Your task to perform on an android device: delete location history Image 0: 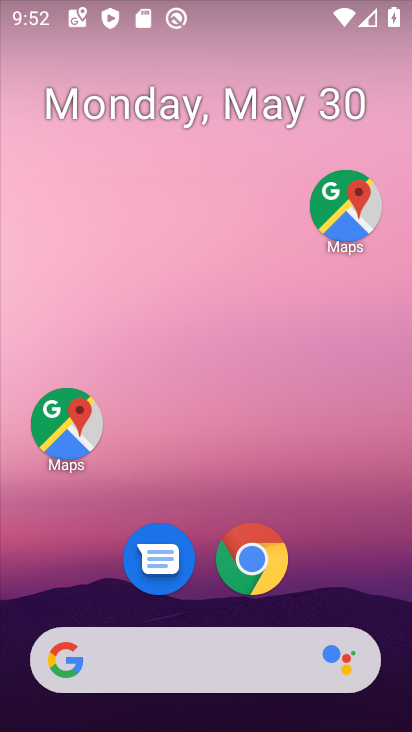
Step 0: click (72, 435)
Your task to perform on an android device: delete location history Image 1: 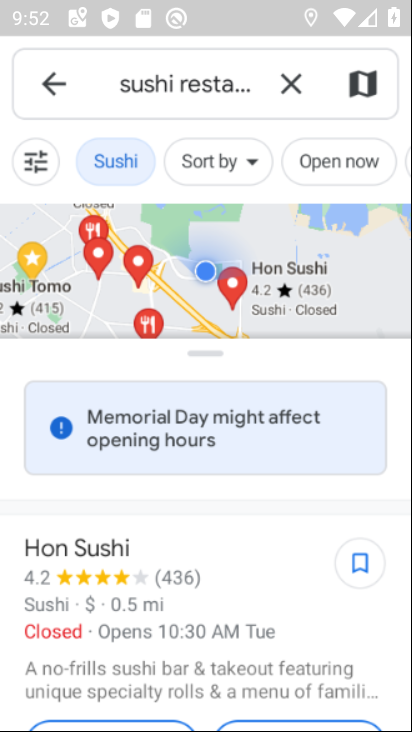
Step 1: click (65, 85)
Your task to perform on an android device: delete location history Image 2: 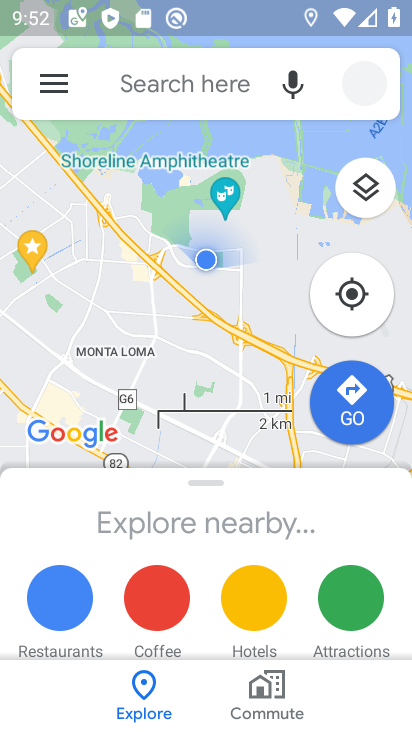
Step 2: click (64, 84)
Your task to perform on an android device: delete location history Image 3: 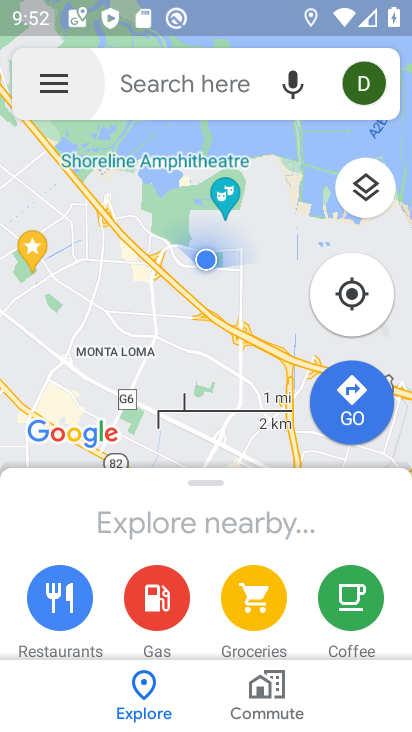
Step 3: click (64, 84)
Your task to perform on an android device: delete location history Image 4: 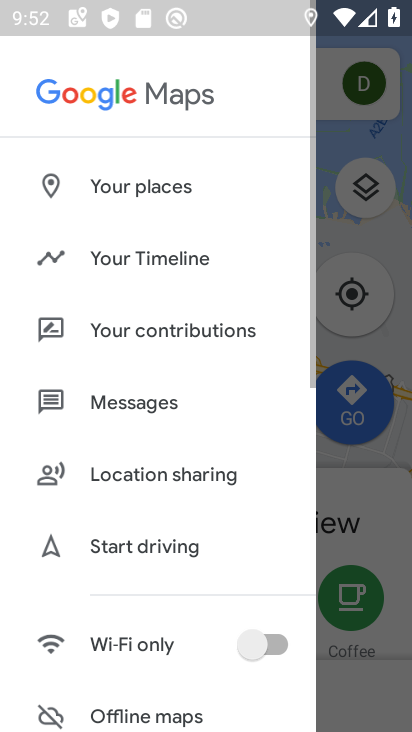
Step 4: drag from (121, 561) to (188, 65)
Your task to perform on an android device: delete location history Image 5: 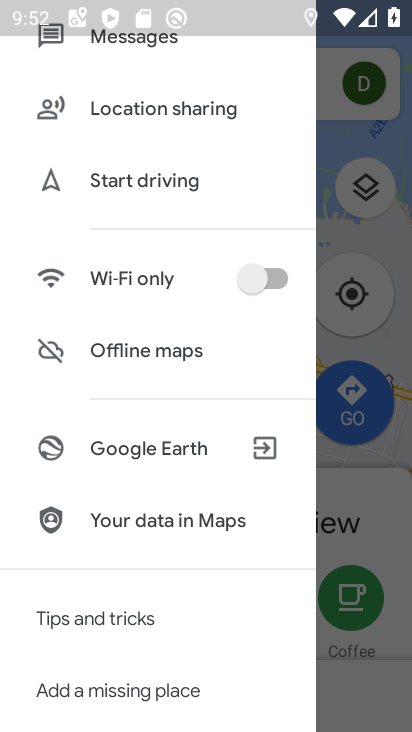
Step 5: drag from (132, 635) to (166, 93)
Your task to perform on an android device: delete location history Image 6: 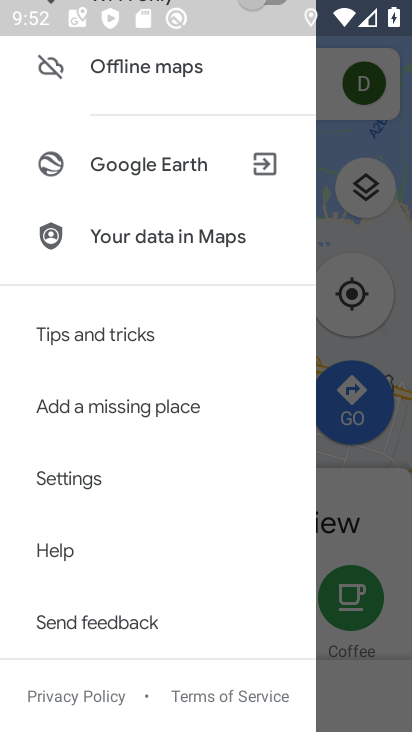
Step 6: click (85, 477)
Your task to perform on an android device: delete location history Image 7: 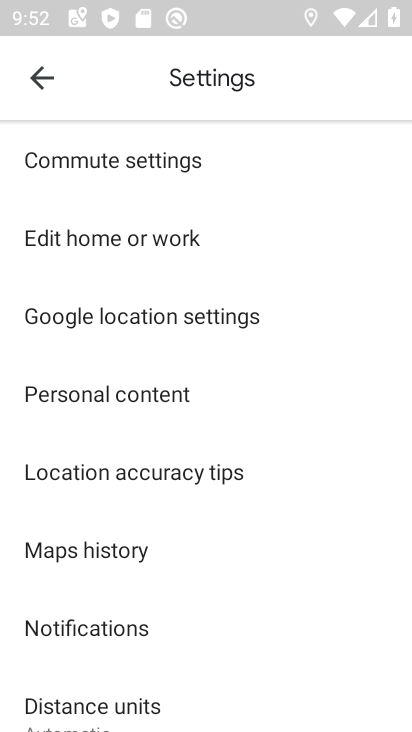
Step 7: click (137, 557)
Your task to perform on an android device: delete location history Image 8: 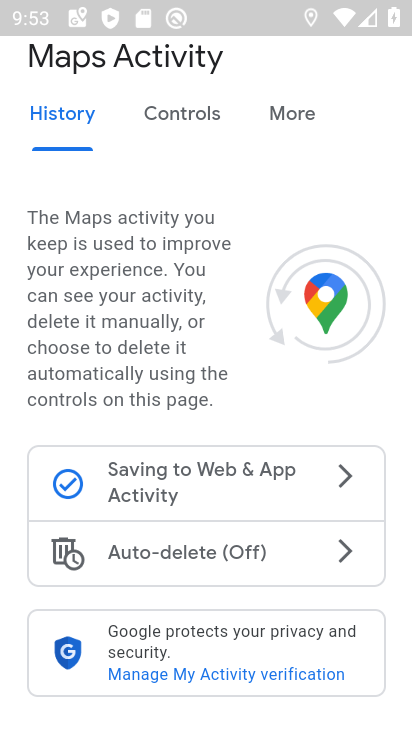
Step 8: drag from (180, 613) to (233, 303)
Your task to perform on an android device: delete location history Image 9: 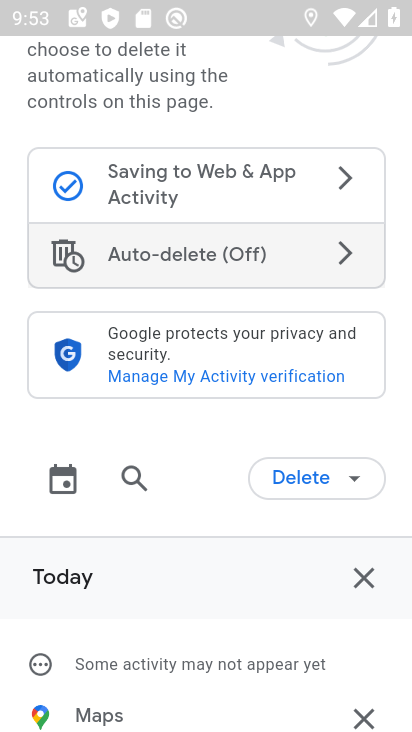
Step 9: click (352, 479)
Your task to perform on an android device: delete location history Image 10: 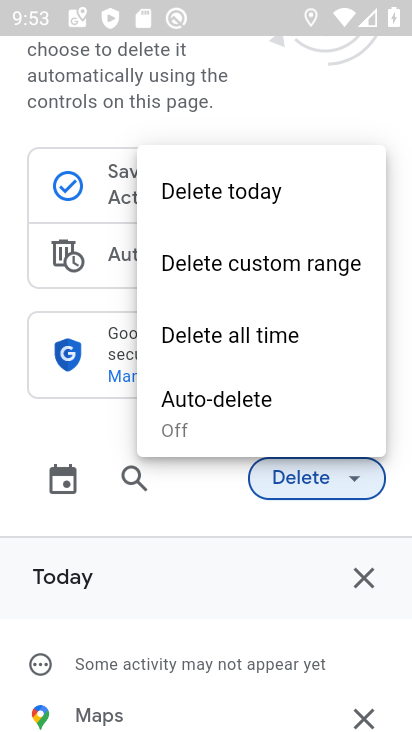
Step 10: click (222, 320)
Your task to perform on an android device: delete location history Image 11: 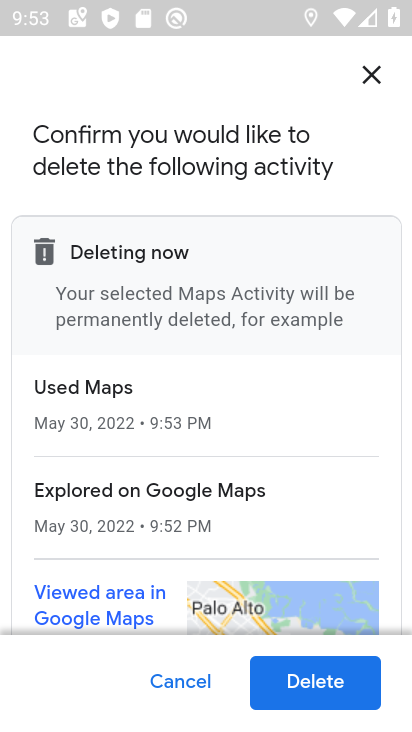
Step 11: click (335, 692)
Your task to perform on an android device: delete location history Image 12: 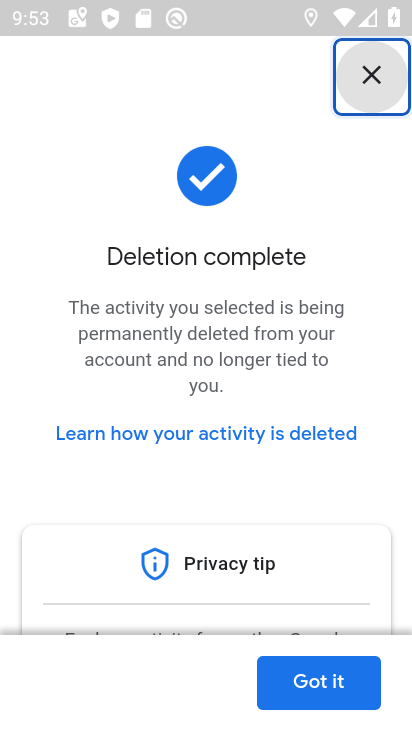
Step 12: click (332, 681)
Your task to perform on an android device: delete location history Image 13: 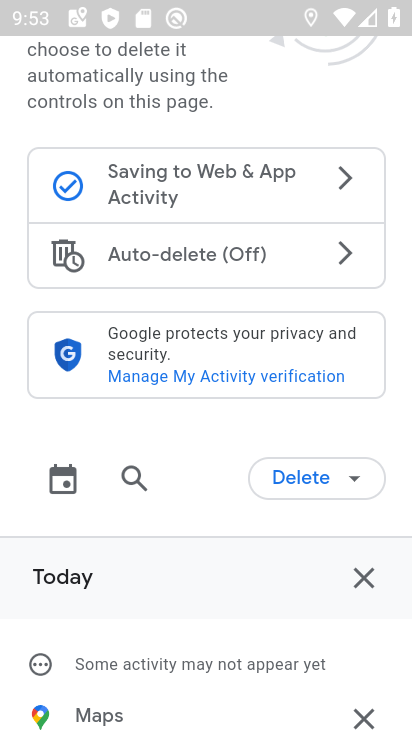
Step 13: task complete